Your task to perform on an android device: Go to Google maps Image 0: 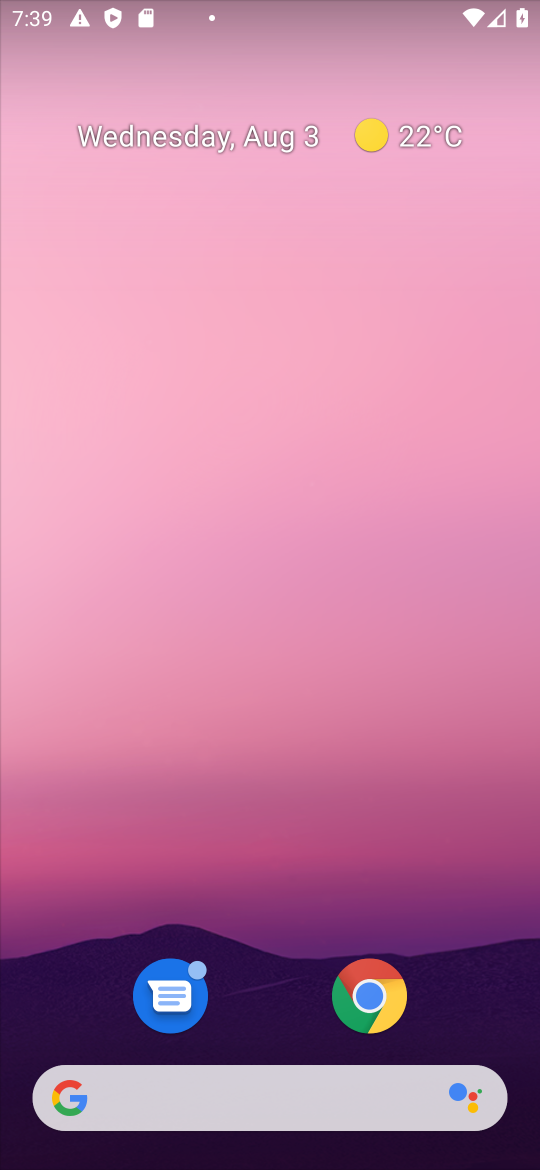
Step 0: drag from (261, 876) to (334, 128)
Your task to perform on an android device: Go to Google maps Image 1: 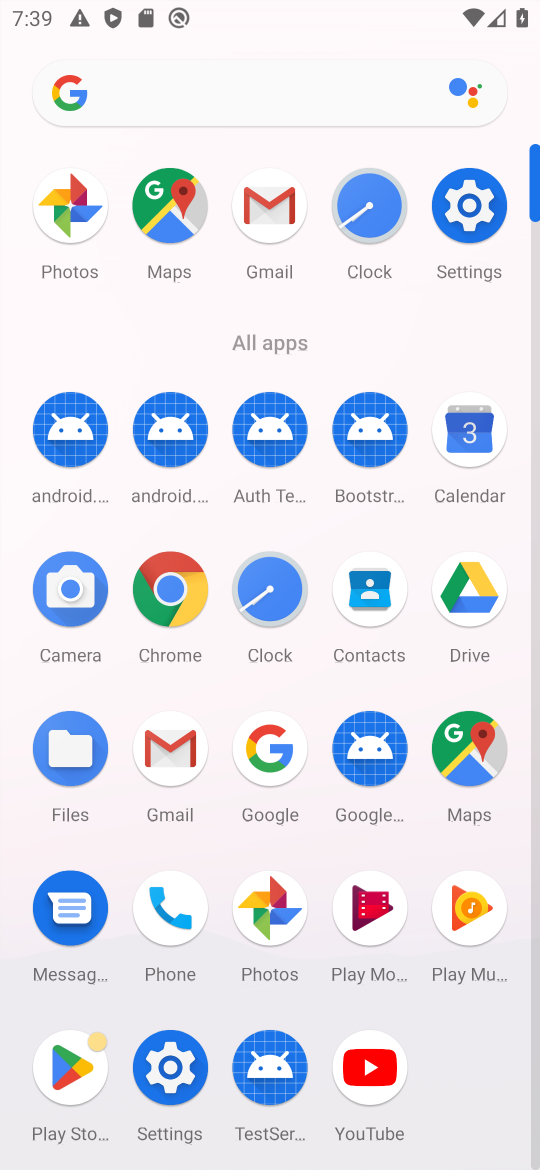
Step 1: click (474, 770)
Your task to perform on an android device: Go to Google maps Image 2: 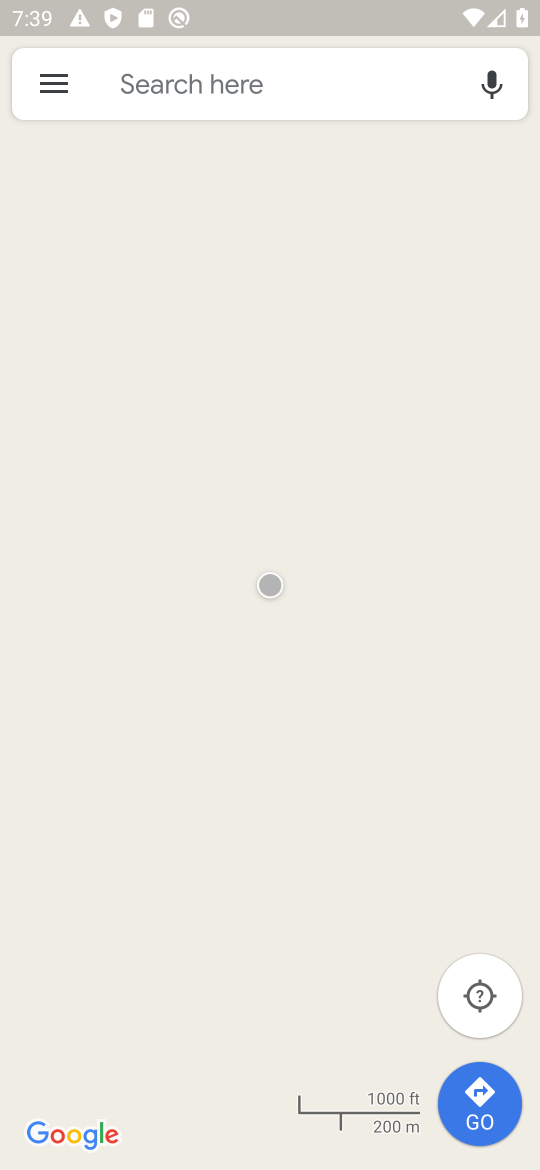
Step 2: task complete